Your task to perform on an android device: Open ESPN.com Image 0: 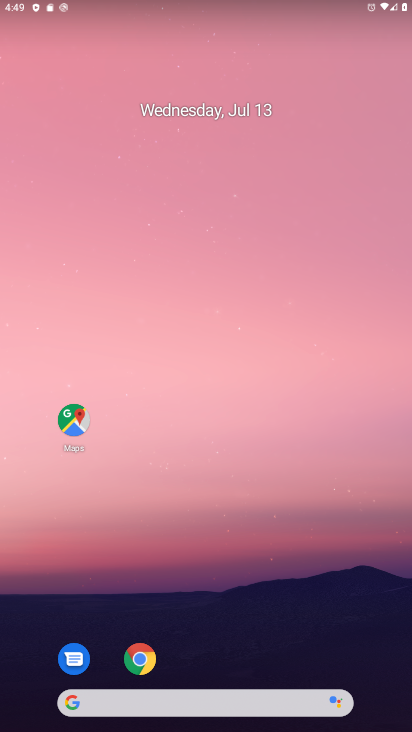
Step 0: drag from (297, 578) to (181, 92)
Your task to perform on an android device: Open ESPN.com Image 1: 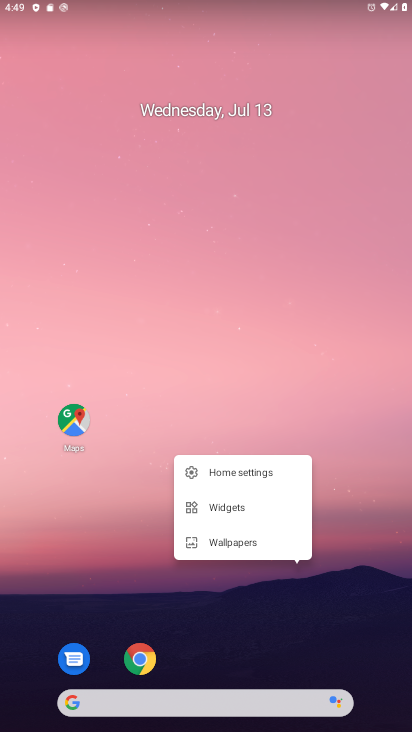
Step 1: click (287, 392)
Your task to perform on an android device: Open ESPN.com Image 2: 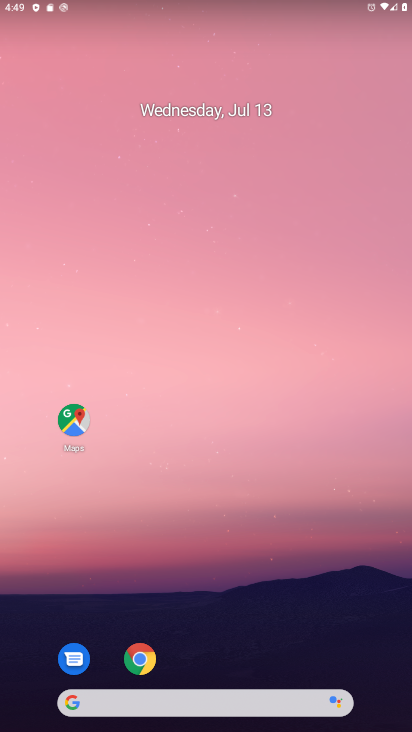
Step 2: drag from (243, 672) to (205, 110)
Your task to perform on an android device: Open ESPN.com Image 3: 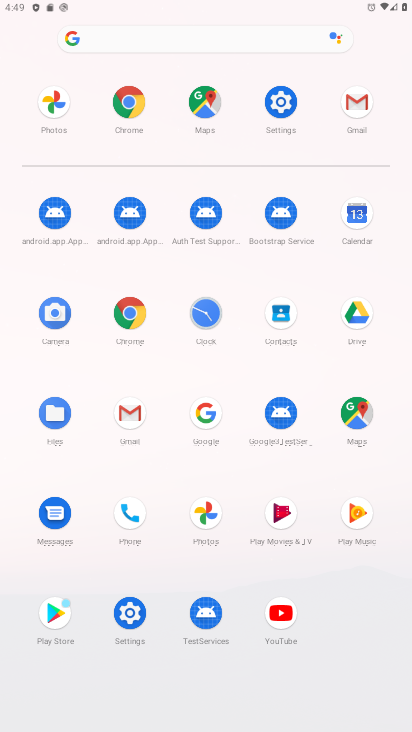
Step 3: click (134, 103)
Your task to perform on an android device: Open ESPN.com Image 4: 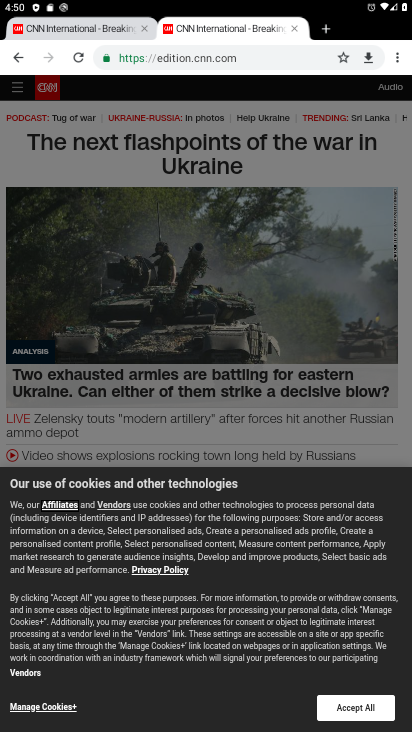
Step 4: click (168, 61)
Your task to perform on an android device: Open ESPN.com Image 5: 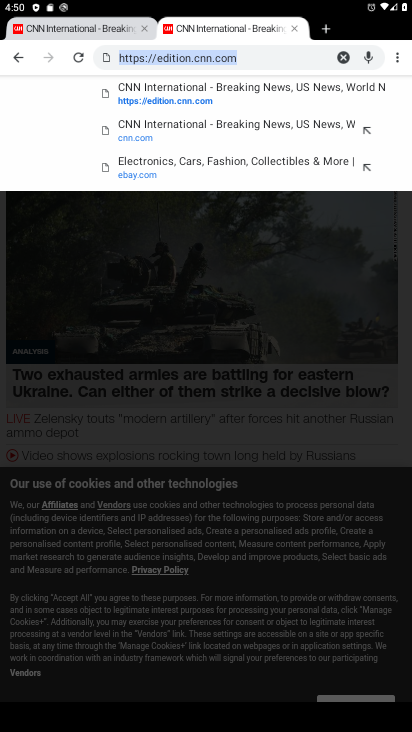
Step 5: type "espn.com"
Your task to perform on an android device: Open ESPN.com Image 6: 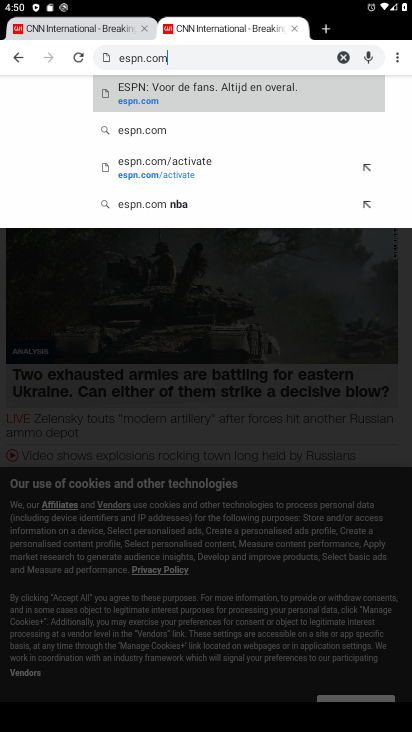
Step 6: click (144, 92)
Your task to perform on an android device: Open ESPN.com Image 7: 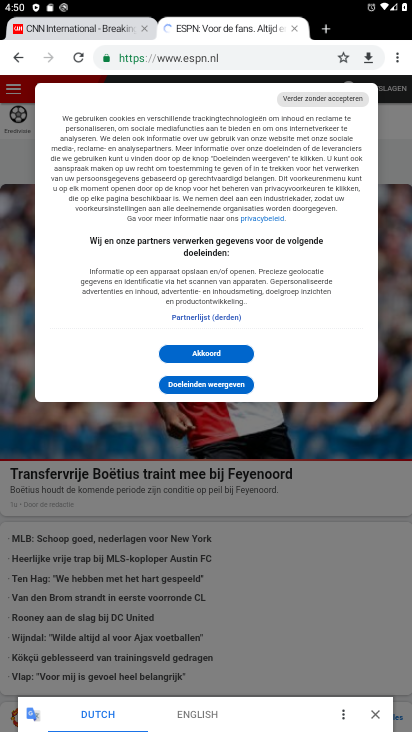
Step 7: task complete